Your task to perform on an android device: Open the stopwatch Image 0: 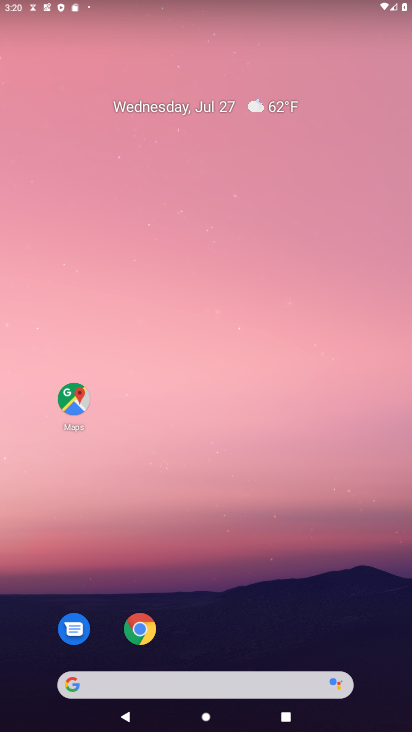
Step 0: drag from (224, 685) to (245, 153)
Your task to perform on an android device: Open the stopwatch Image 1: 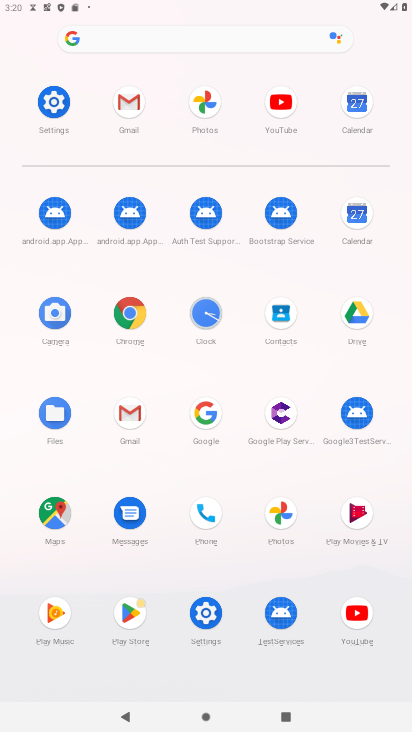
Step 1: click (206, 314)
Your task to perform on an android device: Open the stopwatch Image 2: 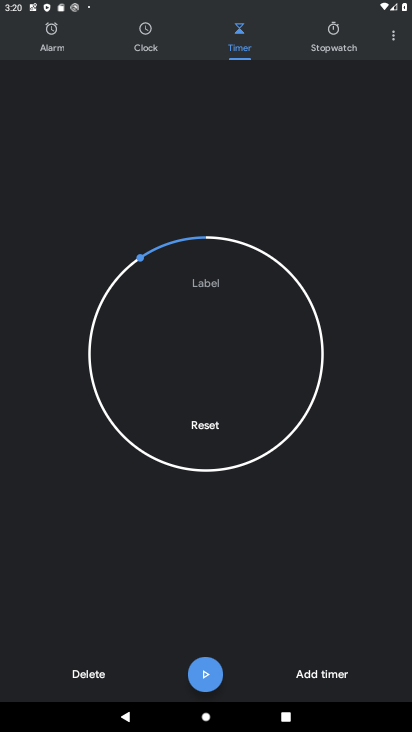
Step 2: click (334, 29)
Your task to perform on an android device: Open the stopwatch Image 3: 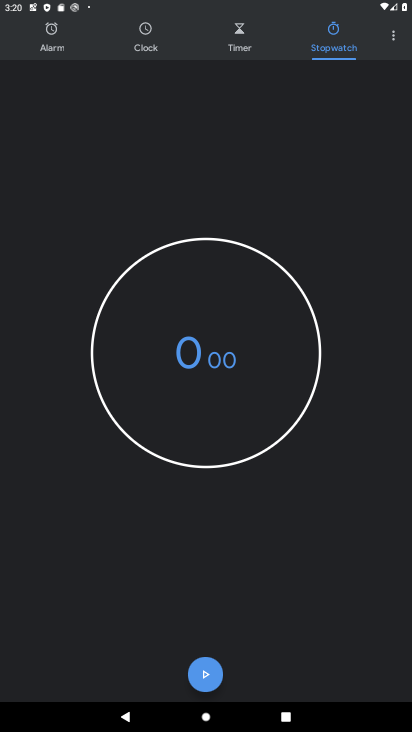
Step 3: task complete